Your task to perform on an android device: snooze an email in the gmail app Image 0: 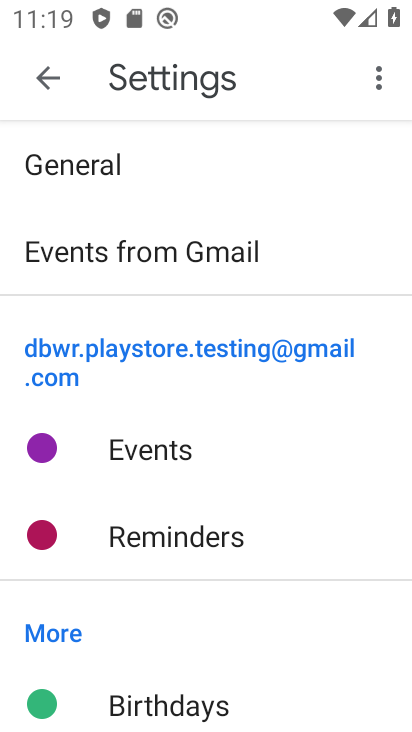
Step 0: press home button
Your task to perform on an android device: snooze an email in the gmail app Image 1: 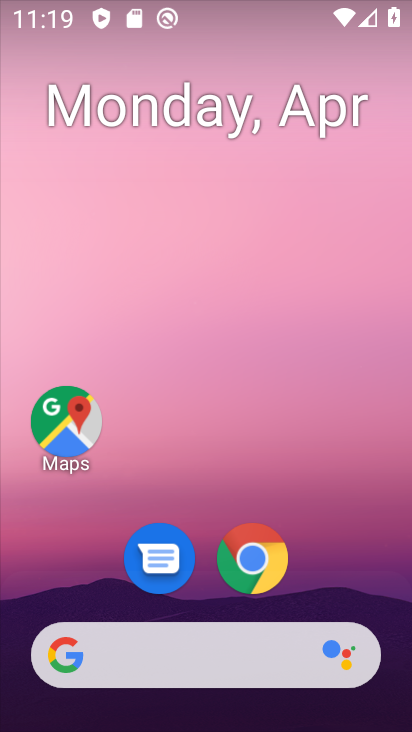
Step 1: drag from (235, 444) to (242, 161)
Your task to perform on an android device: snooze an email in the gmail app Image 2: 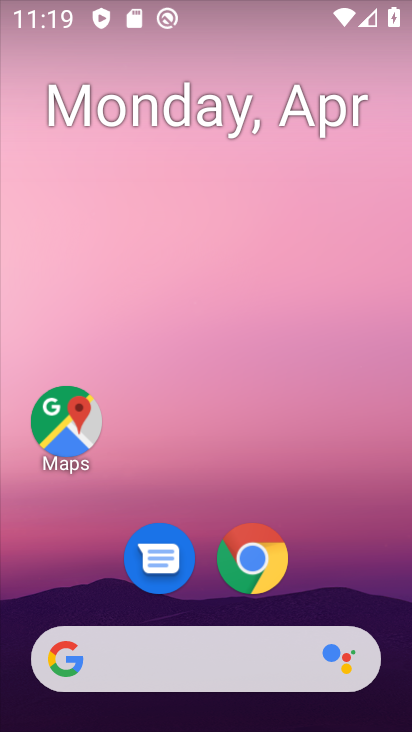
Step 2: drag from (182, 535) to (209, 221)
Your task to perform on an android device: snooze an email in the gmail app Image 3: 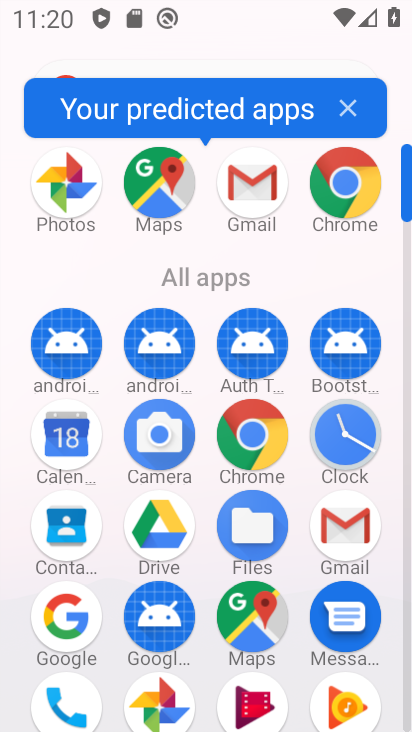
Step 3: click (328, 536)
Your task to perform on an android device: snooze an email in the gmail app Image 4: 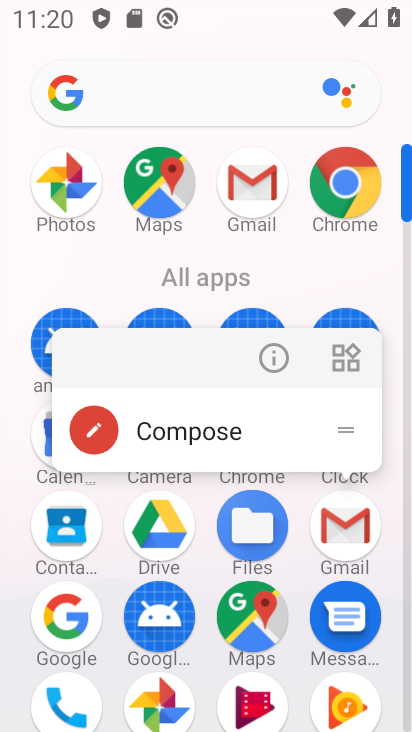
Step 4: click (276, 364)
Your task to perform on an android device: snooze an email in the gmail app Image 5: 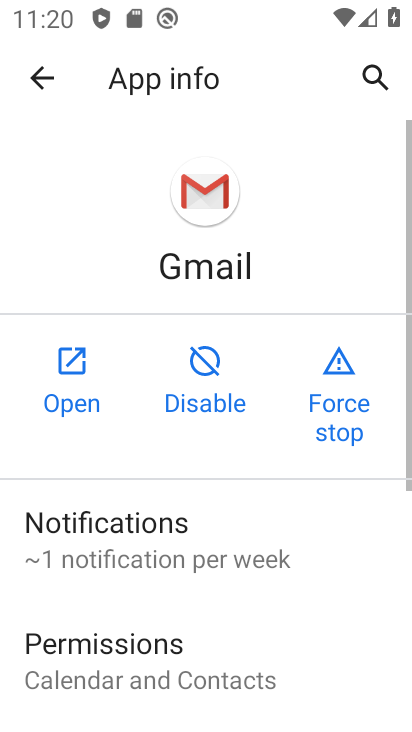
Step 5: click (61, 368)
Your task to perform on an android device: snooze an email in the gmail app Image 6: 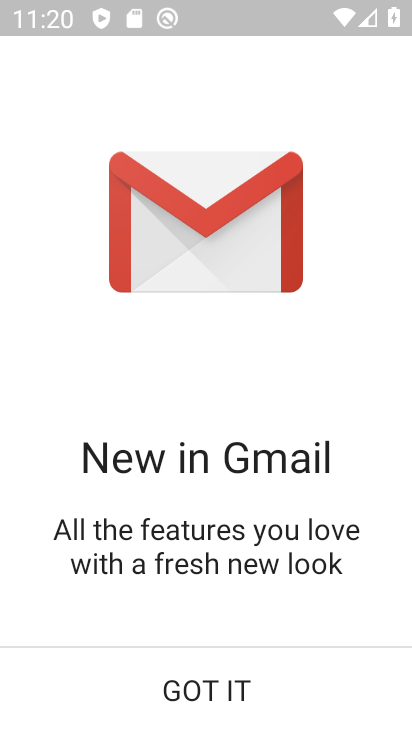
Step 6: click (188, 679)
Your task to perform on an android device: snooze an email in the gmail app Image 7: 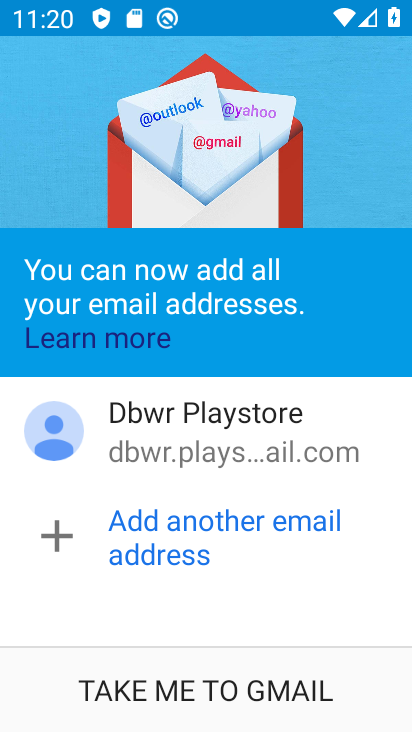
Step 7: click (240, 677)
Your task to perform on an android device: snooze an email in the gmail app Image 8: 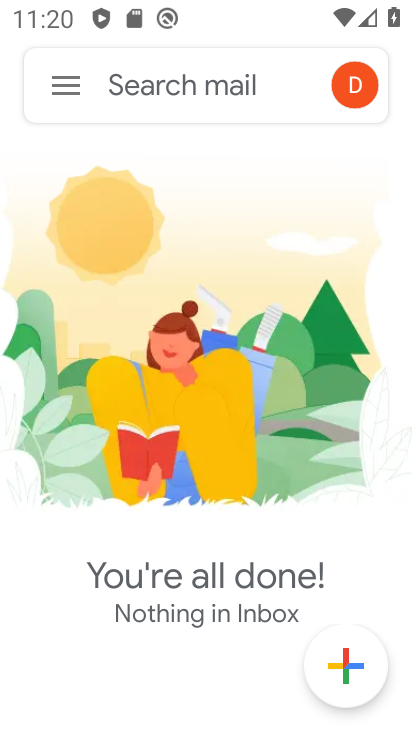
Step 8: task complete